Your task to perform on an android device: open app "DoorDash - Food Delivery" Image 0: 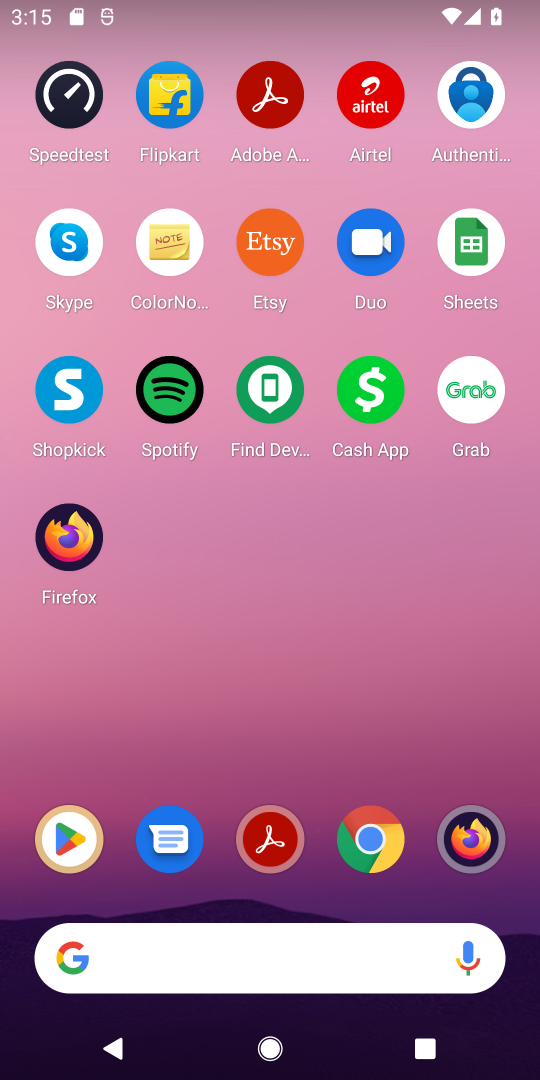
Step 0: press home button
Your task to perform on an android device: open app "DoorDash - Food Delivery" Image 1: 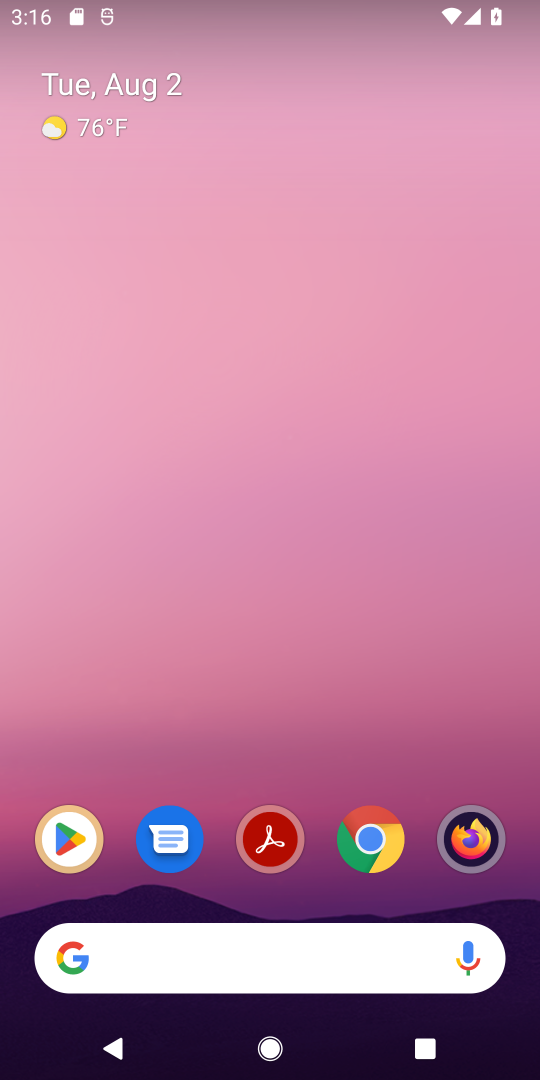
Step 1: click (103, 844)
Your task to perform on an android device: open app "DoorDash - Food Delivery" Image 2: 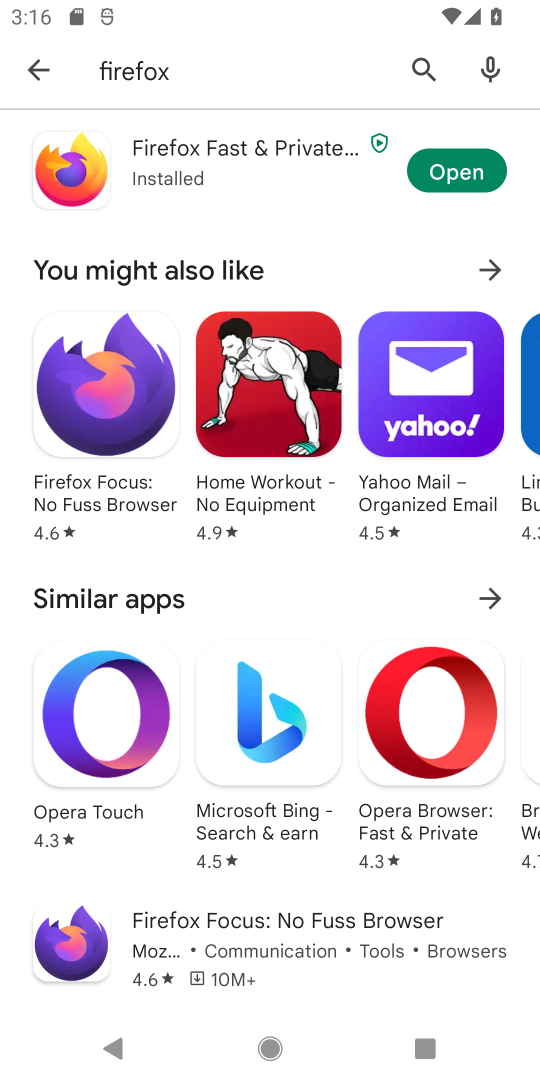
Step 2: click (432, 66)
Your task to perform on an android device: open app "DoorDash - Food Delivery" Image 3: 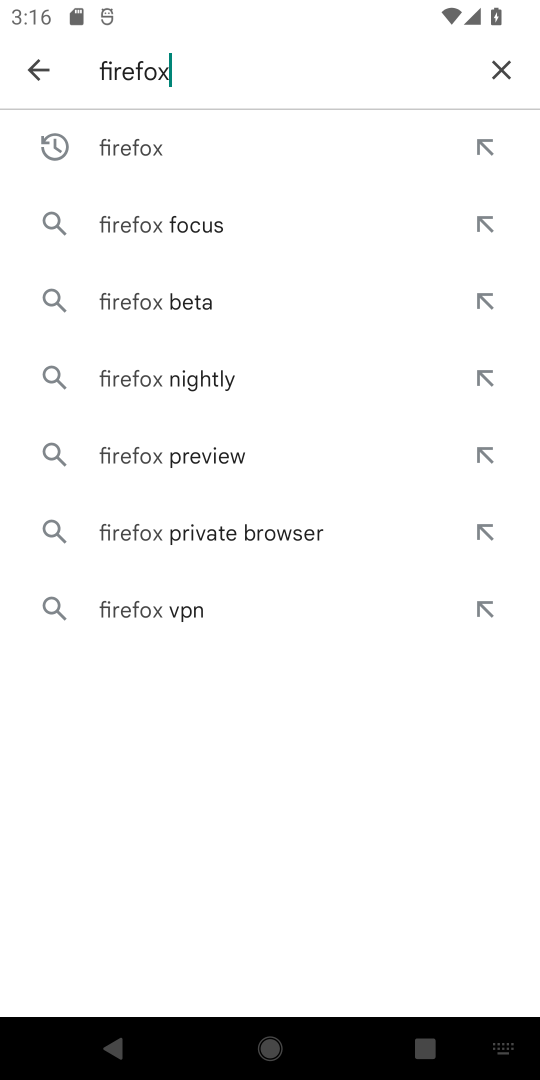
Step 3: click (494, 66)
Your task to perform on an android device: open app "DoorDash - Food Delivery" Image 4: 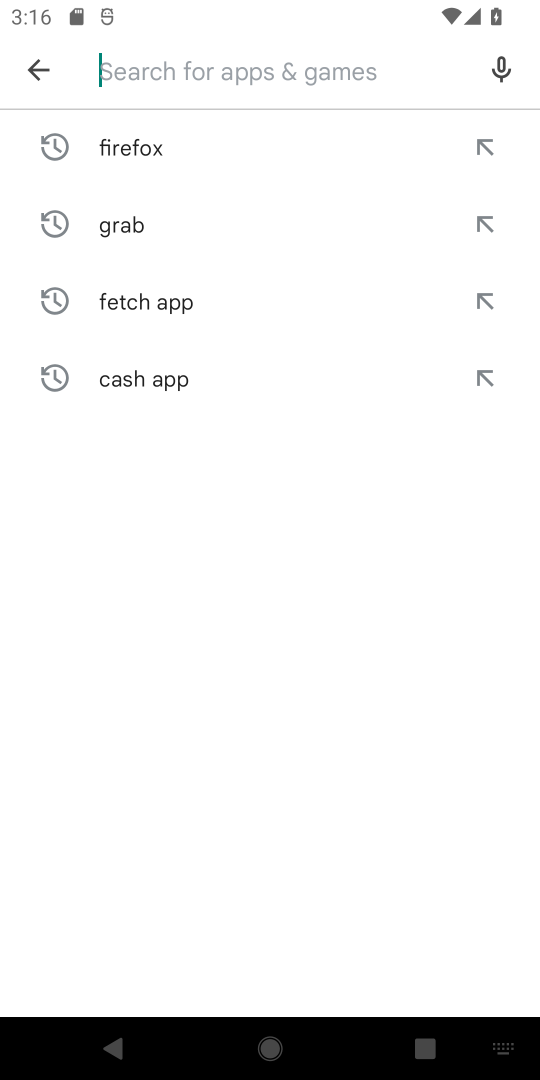
Step 4: type "doordash"
Your task to perform on an android device: open app "DoorDash - Food Delivery" Image 5: 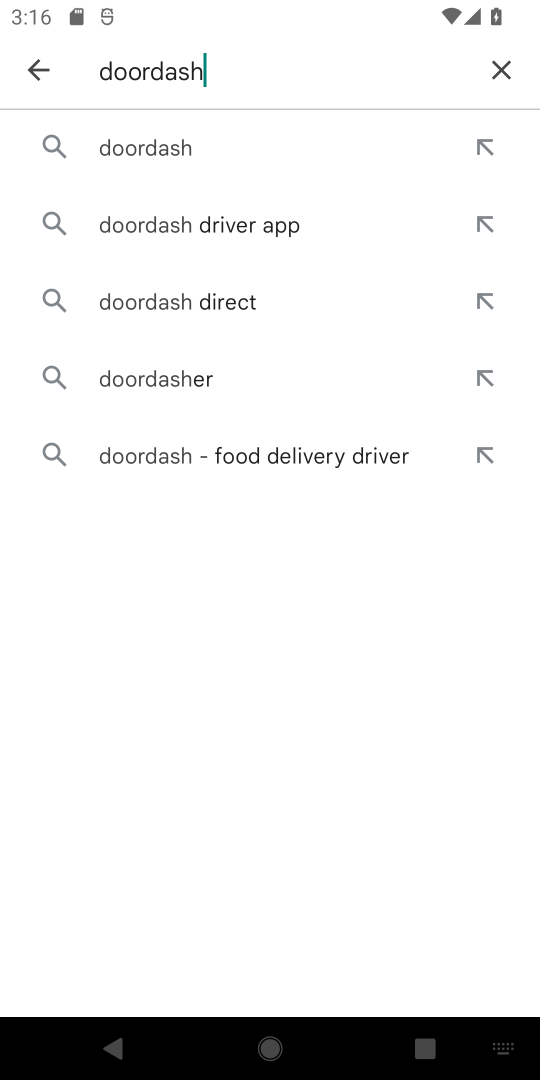
Step 5: click (131, 161)
Your task to perform on an android device: open app "DoorDash - Food Delivery" Image 6: 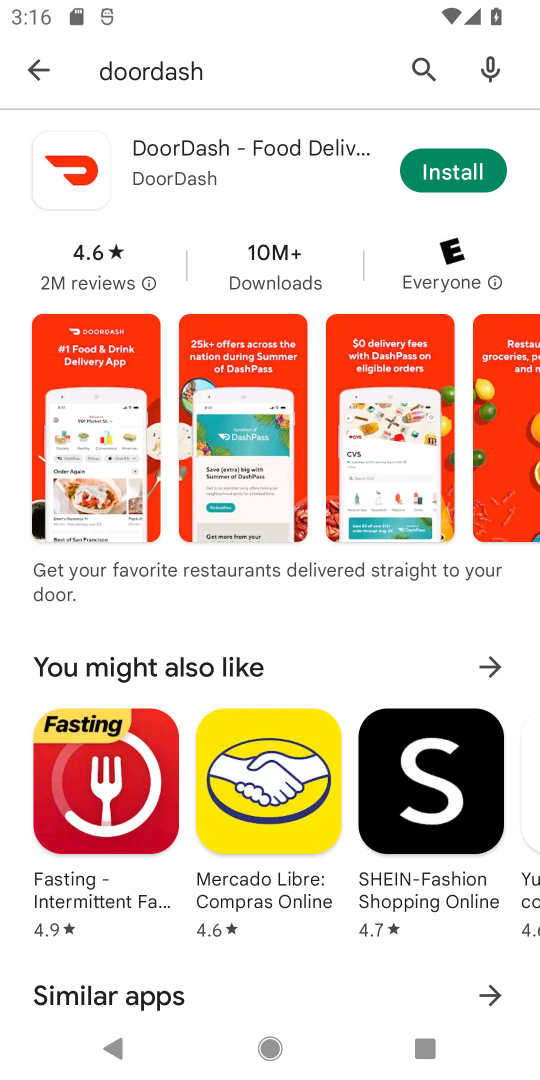
Step 6: click (469, 160)
Your task to perform on an android device: open app "DoorDash - Food Delivery" Image 7: 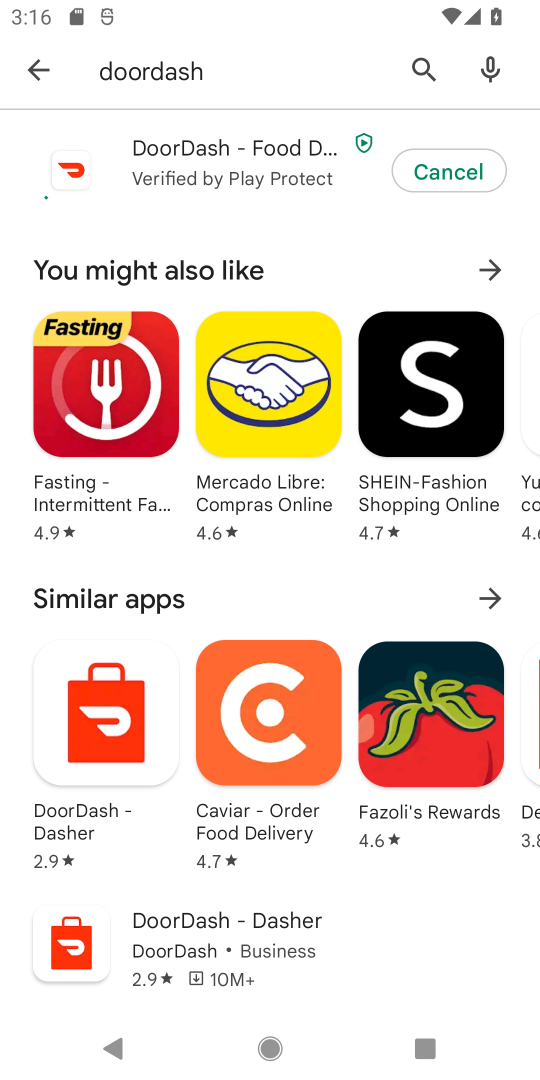
Step 7: task complete